Your task to perform on an android device: Open Google Maps and go to "Timeline" Image 0: 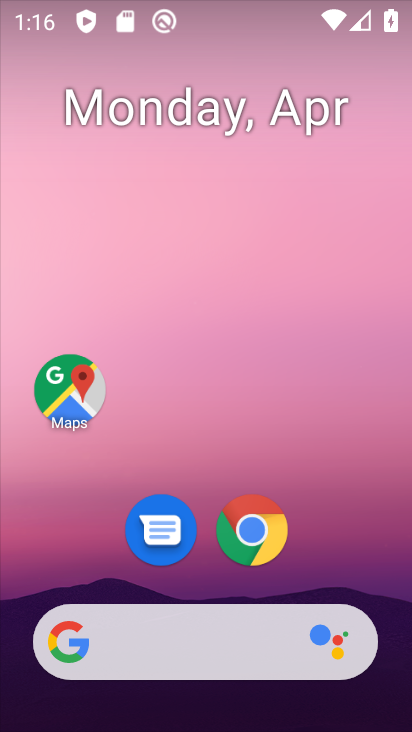
Step 0: click (65, 394)
Your task to perform on an android device: Open Google Maps and go to "Timeline" Image 1: 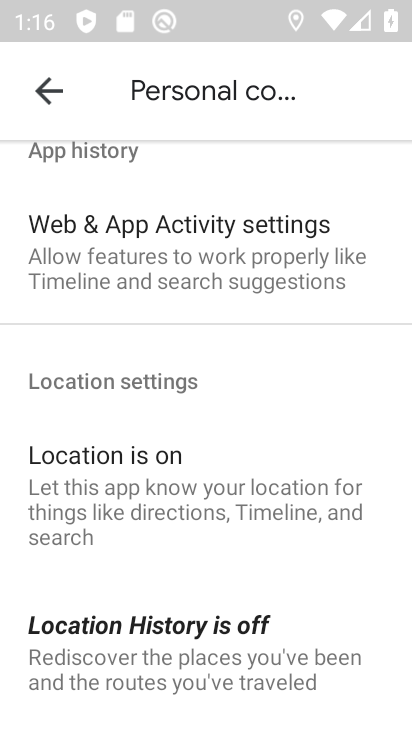
Step 1: click (47, 89)
Your task to perform on an android device: Open Google Maps and go to "Timeline" Image 2: 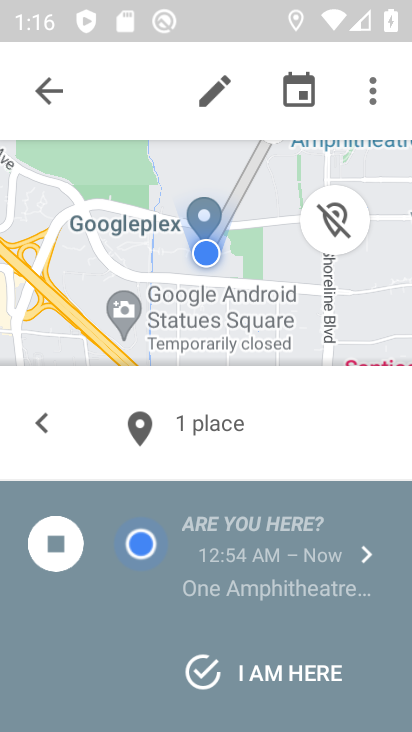
Step 2: click (44, 90)
Your task to perform on an android device: Open Google Maps and go to "Timeline" Image 3: 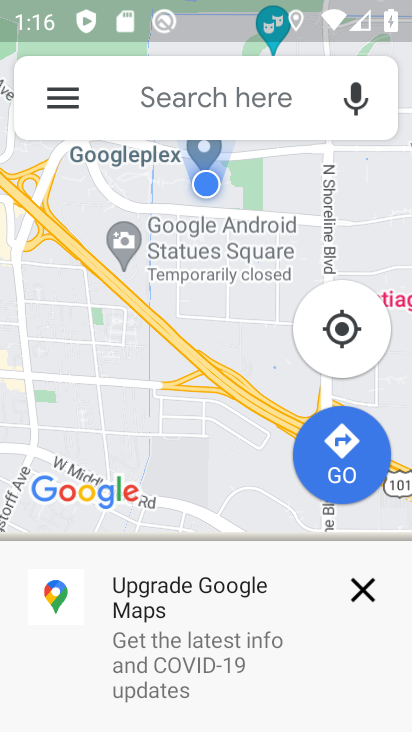
Step 3: click (60, 90)
Your task to perform on an android device: Open Google Maps and go to "Timeline" Image 4: 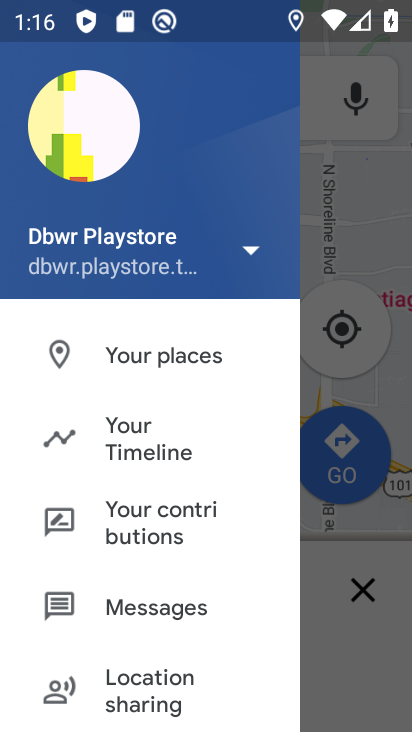
Step 4: click (107, 426)
Your task to perform on an android device: Open Google Maps and go to "Timeline" Image 5: 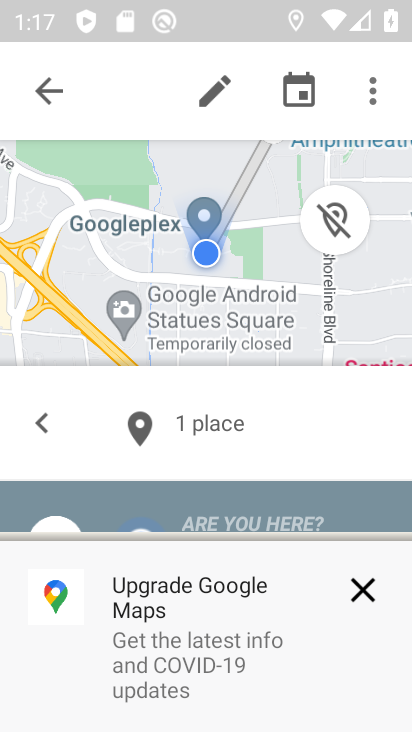
Step 5: task complete